Your task to perform on an android device: Clear the cart on bestbuy.com. Add "corsair k70" to the cart on bestbuy.com Image 0: 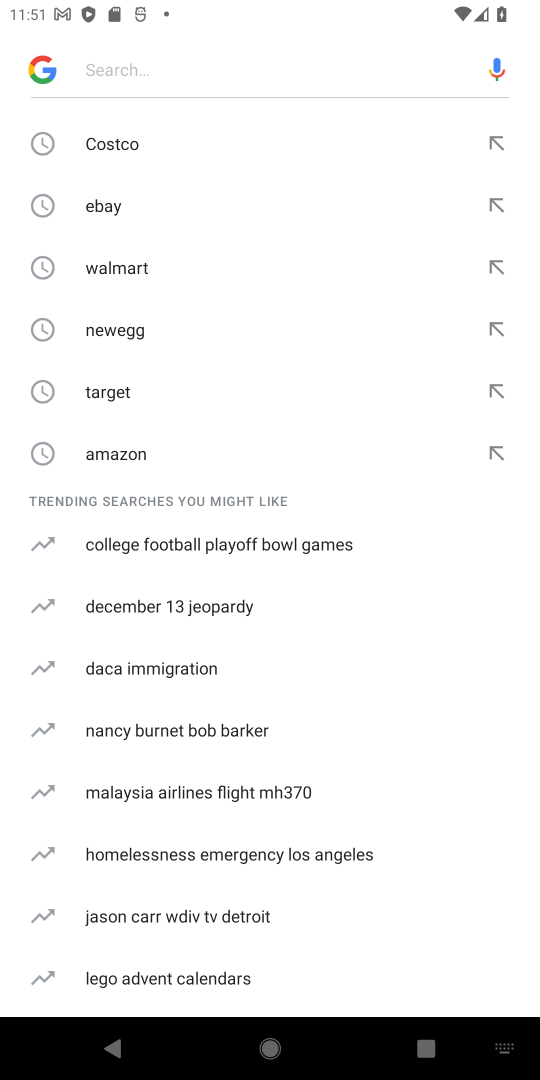
Step 0: type "bestbuy"
Your task to perform on an android device: Clear the cart on bestbuy.com. Add "corsair k70" to the cart on bestbuy.com Image 1: 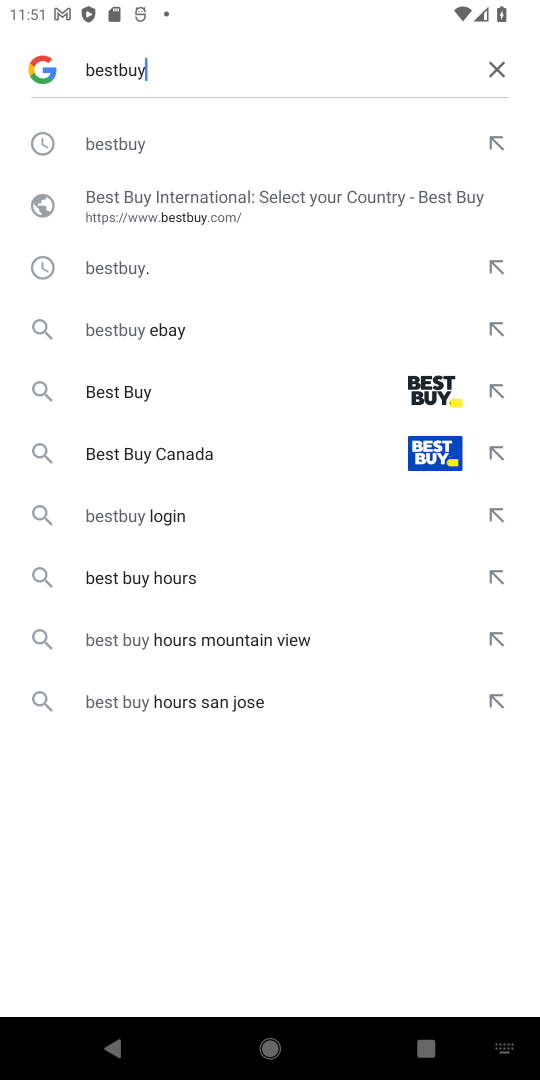
Step 1: click (187, 403)
Your task to perform on an android device: Clear the cart on bestbuy.com. Add "corsair k70" to the cart on bestbuy.com Image 2: 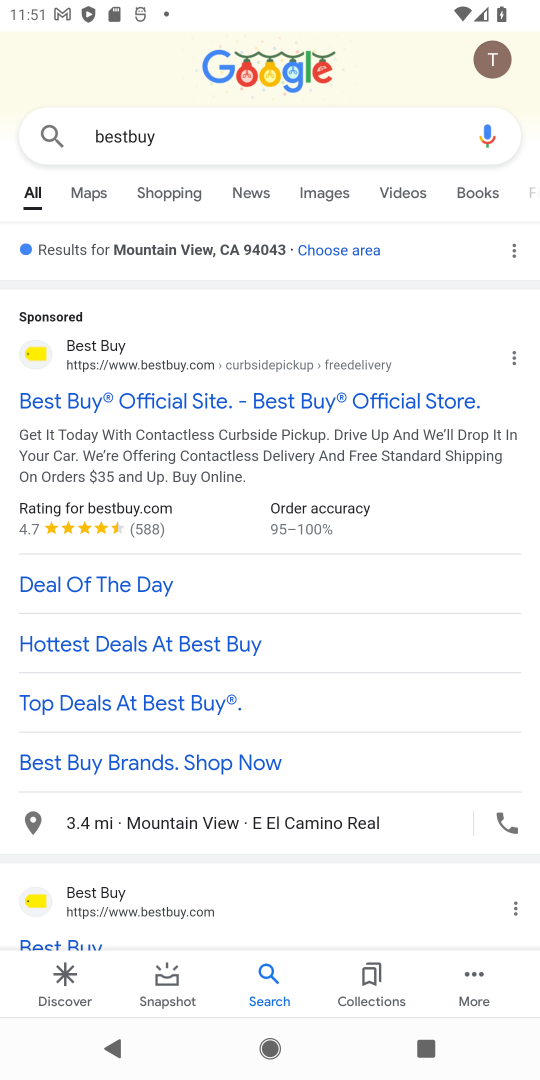
Step 2: click (196, 408)
Your task to perform on an android device: Clear the cart on bestbuy.com. Add "corsair k70" to the cart on bestbuy.com Image 3: 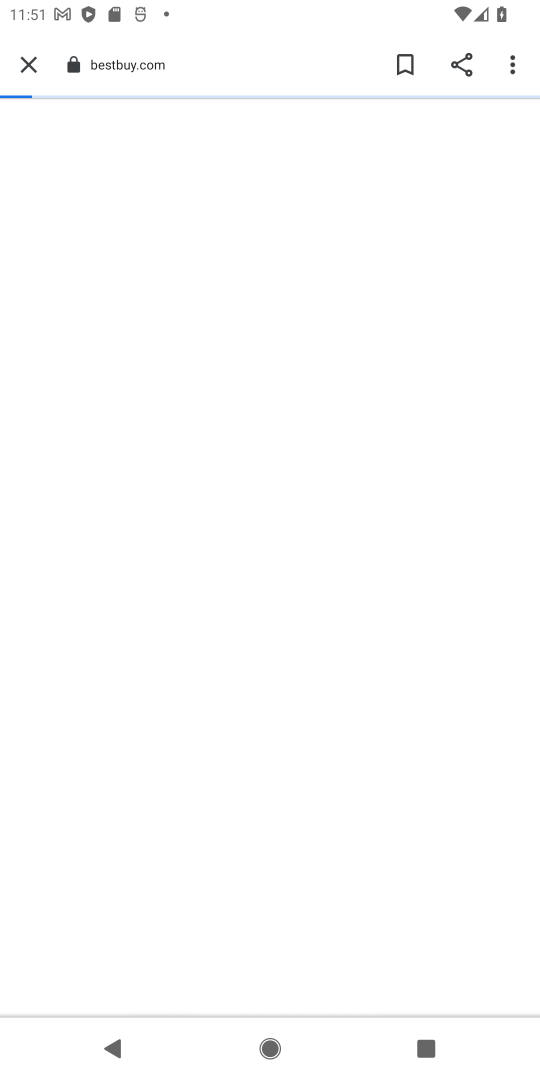
Step 3: click (283, 357)
Your task to perform on an android device: Clear the cart on bestbuy.com. Add "corsair k70" to the cart on bestbuy.com Image 4: 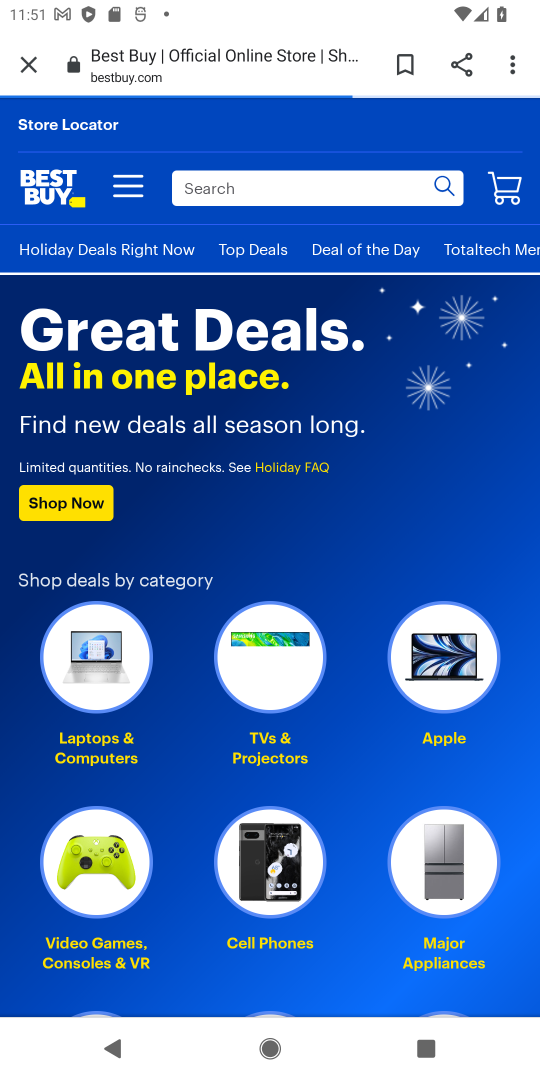
Step 4: click (219, 191)
Your task to perform on an android device: Clear the cart on bestbuy.com. Add "corsair k70" to the cart on bestbuy.com Image 5: 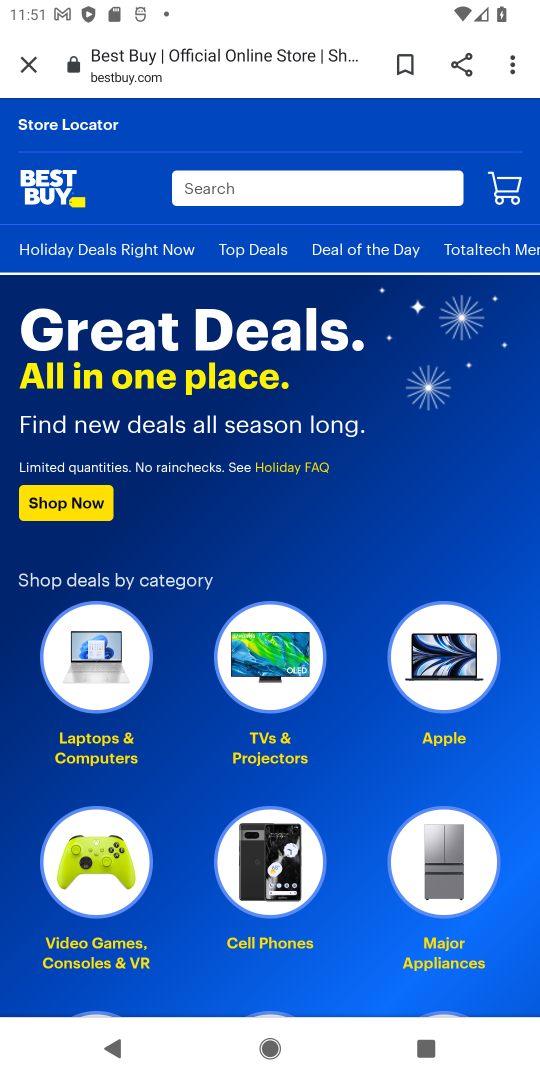
Step 5: click (219, 191)
Your task to perform on an android device: Clear the cart on bestbuy.com. Add "corsair k70" to the cart on bestbuy.com Image 6: 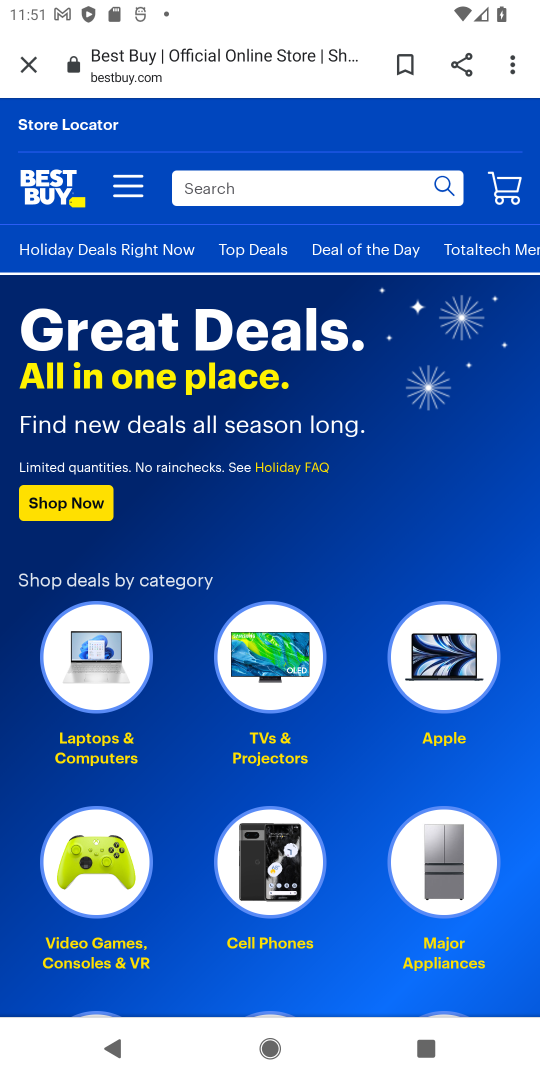
Step 6: click (219, 191)
Your task to perform on an android device: Clear the cart on bestbuy.com. Add "corsair k70" to the cart on bestbuy.com Image 7: 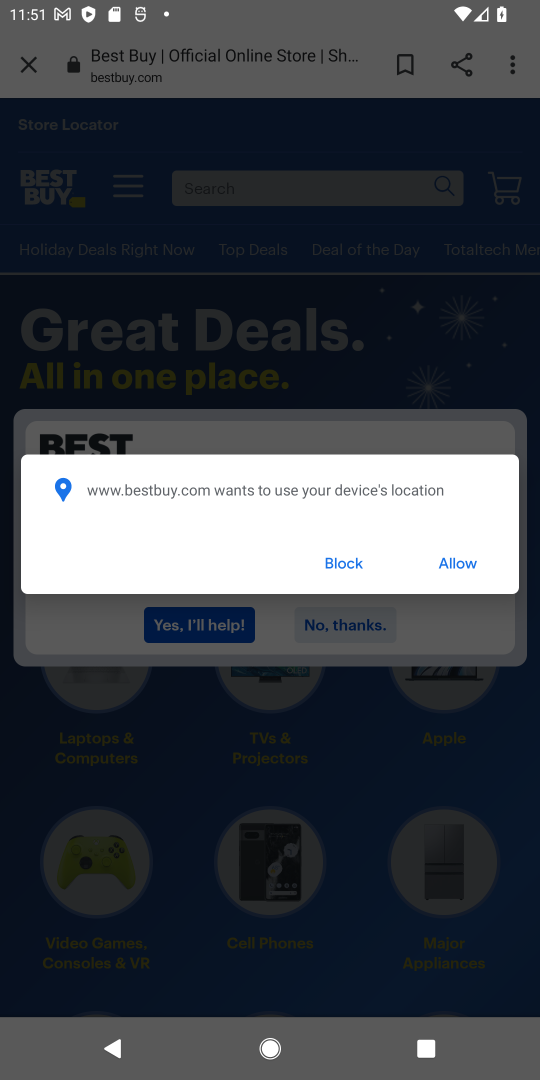
Step 7: click (448, 566)
Your task to perform on an android device: Clear the cart on bestbuy.com. Add "corsair k70" to the cart on bestbuy.com Image 8: 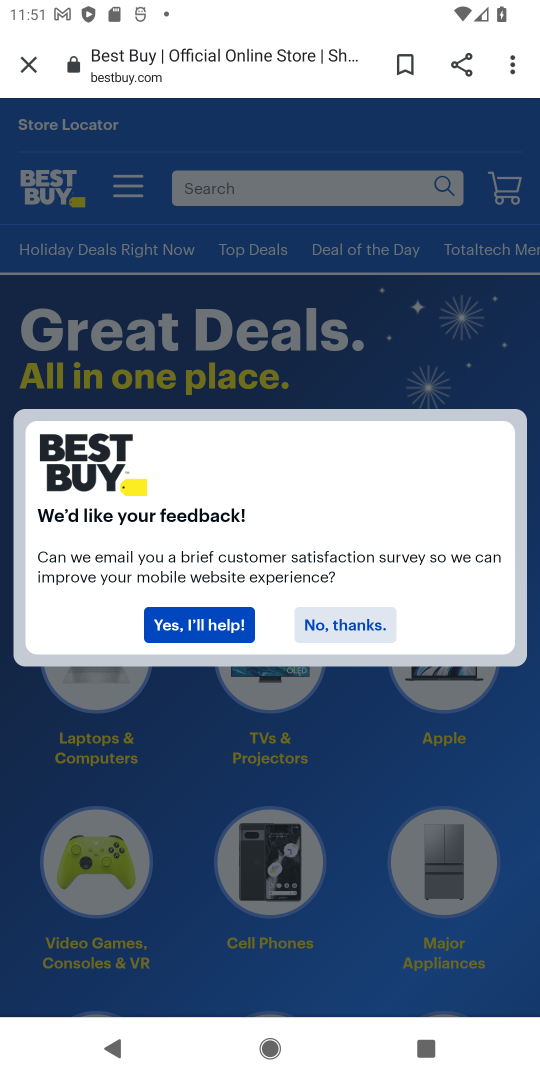
Step 8: click (317, 617)
Your task to perform on an android device: Clear the cart on bestbuy.com. Add "corsair k70" to the cart on bestbuy.com Image 9: 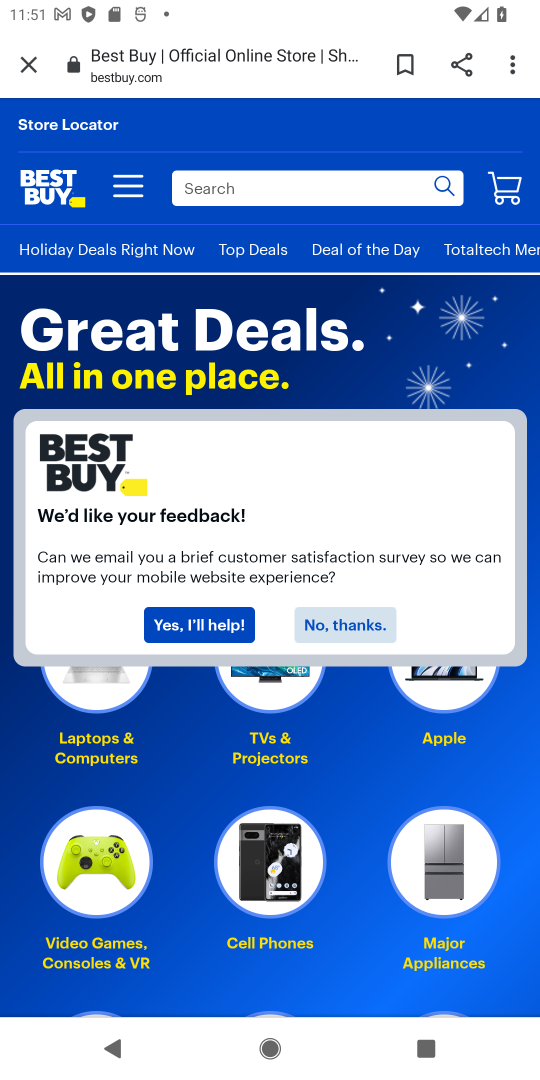
Step 9: click (224, 198)
Your task to perform on an android device: Clear the cart on bestbuy.com. Add "corsair k70" to the cart on bestbuy.com Image 10: 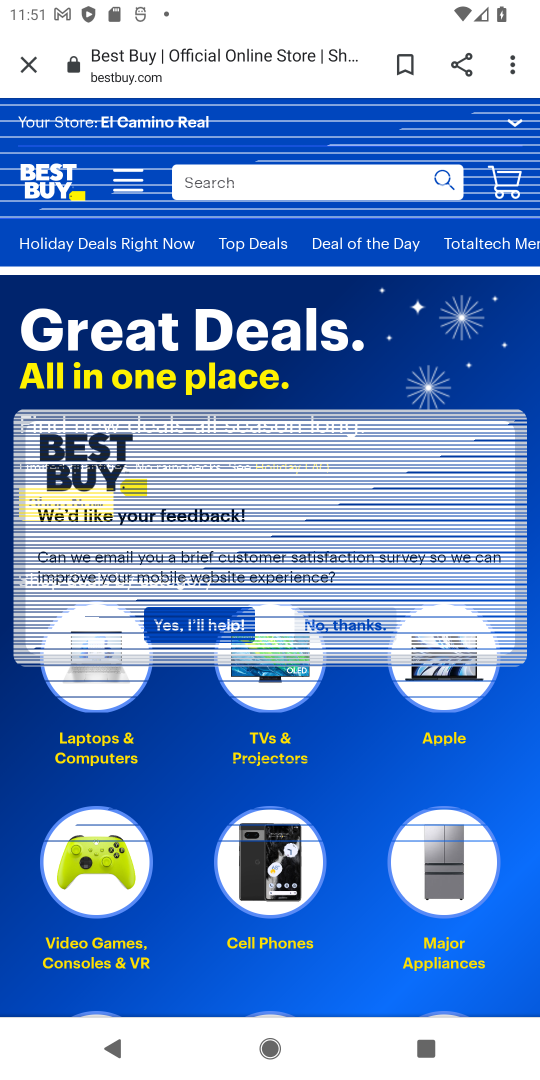
Step 10: click (224, 198)
Your task to perform on an android device: Clear the cart on bestbuy.com. Add "corsair k70" to the cart on bestbuy.com Image 11: 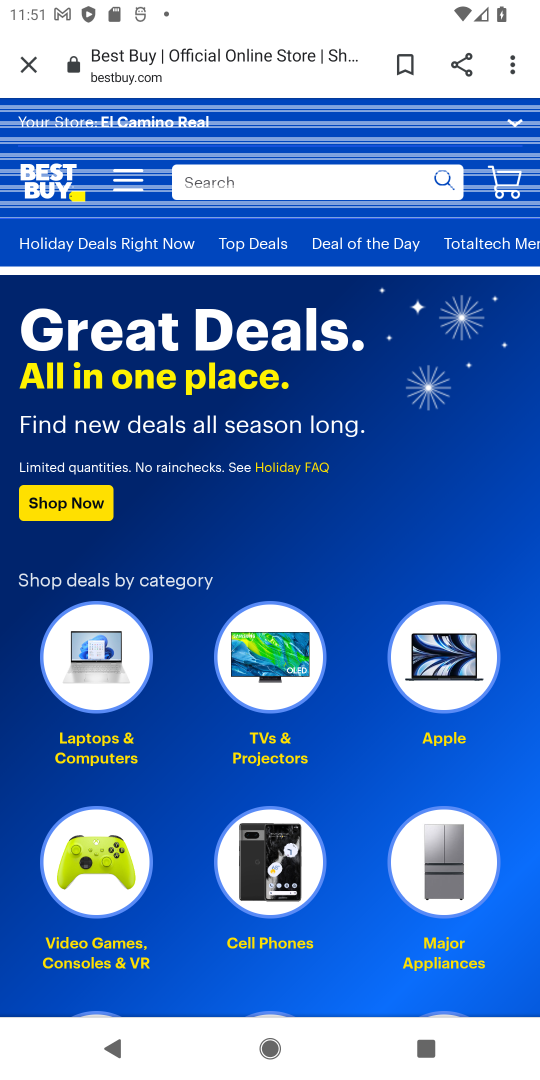
Step 11: click (224, 198)
Your task to perform on an android device: Clear the cart on bestbuy.com. Add "corsair k70" to the cart on bestbuy.com Image 12: 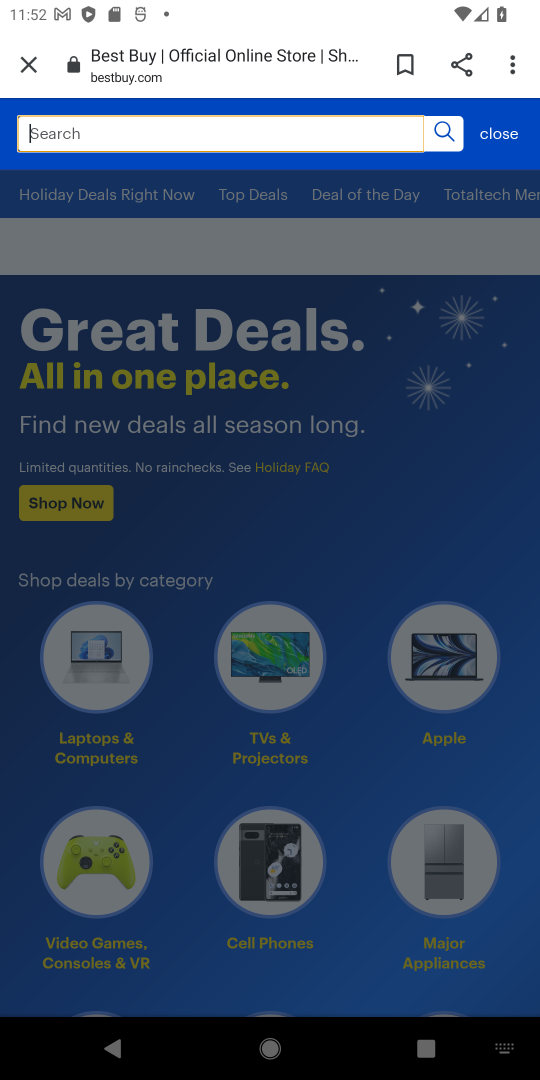
Step 12: type "corsair k70"
Your task to perform on an android device: Clear the cart on bestbuy.com. Add "corsair k70" to the cart on bestbuy.com Image 13: 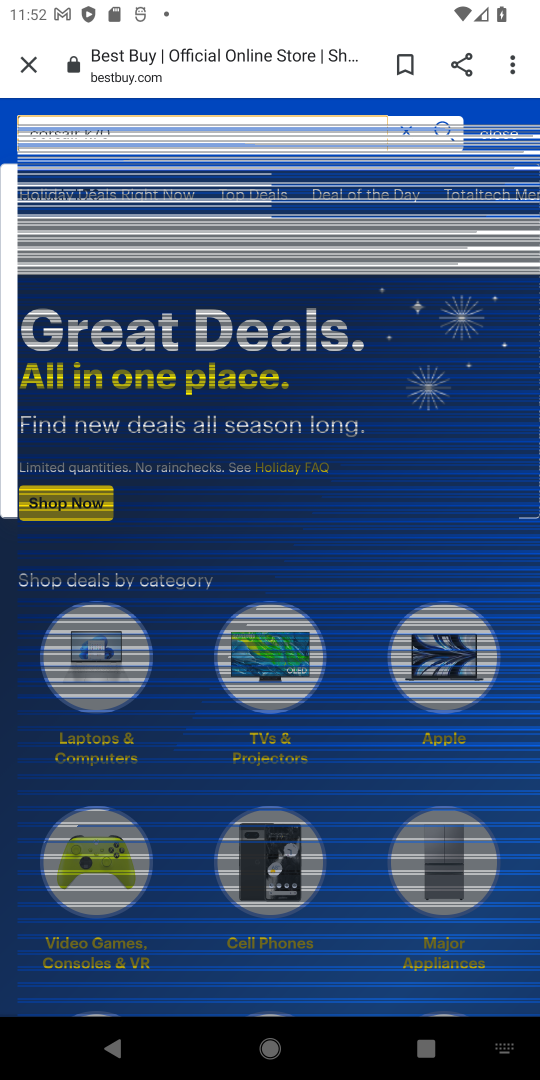
Step 13: click (258, 189)
Your task to perform on an android device: Clear the cart on bestbuy.com. Add "corsair k70" to the cart on bestbuy.com Image 14: 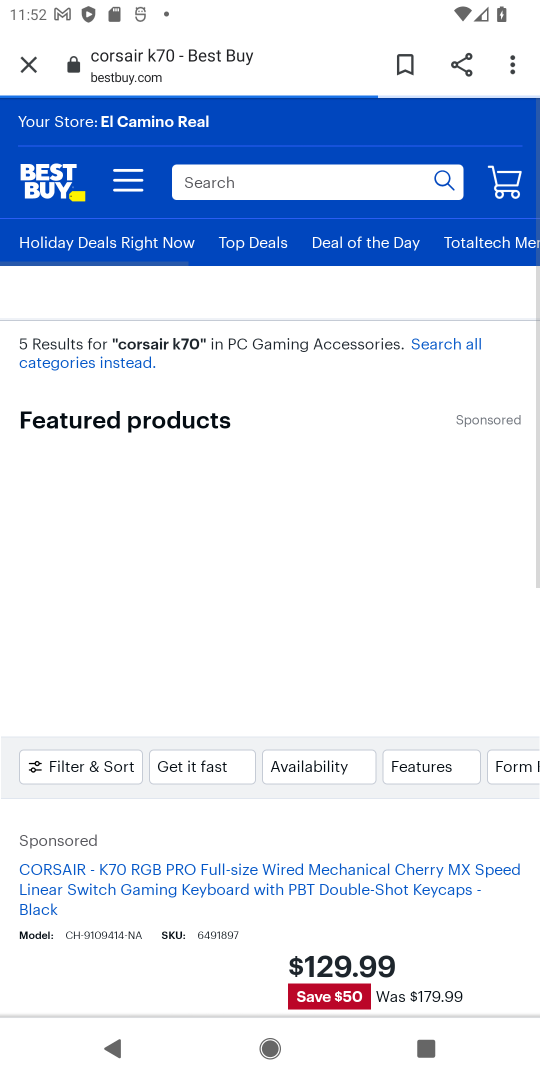
Step 14: click (441, 126)
Your task to perform on an android device: Clear the cart on bestbuy.com. Add "corsair k70" to the cart on bestbuy.com Image 15: 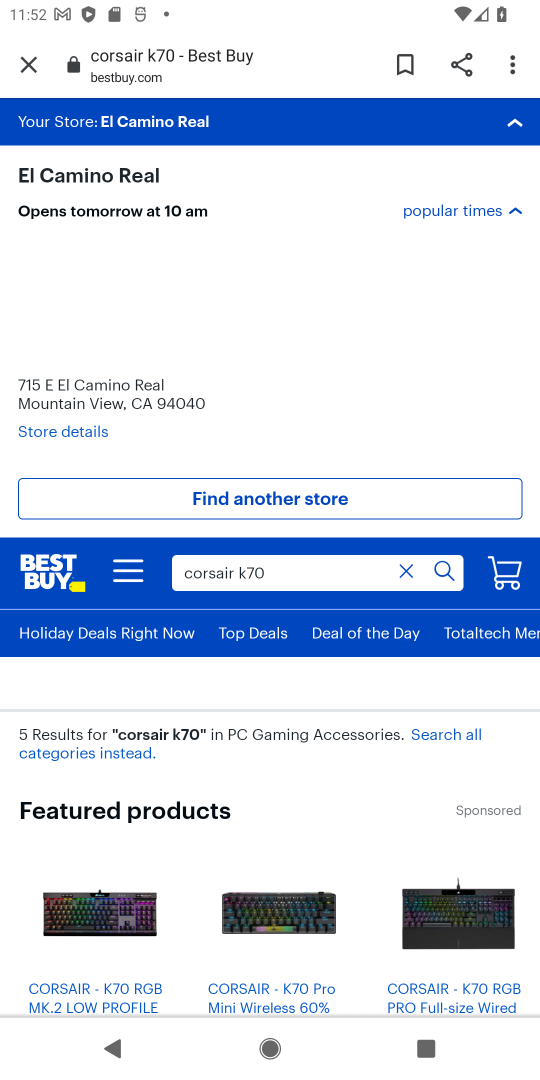
Step 15: task complete